Your task to perform on an android device: check android version Image 0: 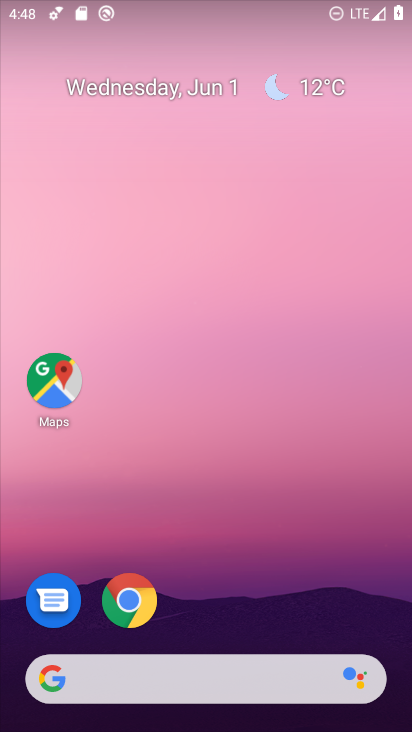
Step 0: drag from (358, 620) to (273, 163)
Your task to perform on an android device: check android version Image 1: 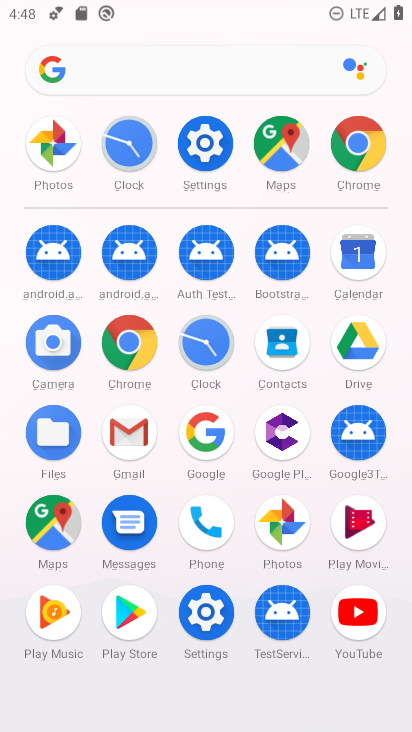
Step 1: click (208, 616)
Your task to perform on an android device: check android version Image 2: 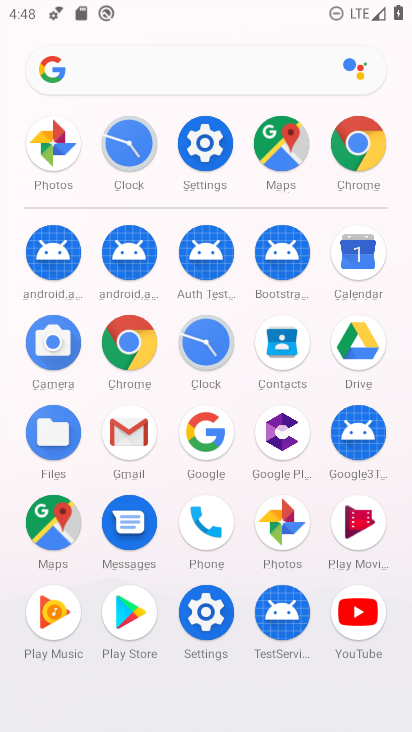
Step 2: click (208, 616)
Your task to perform on an android device: check android version Image 3: 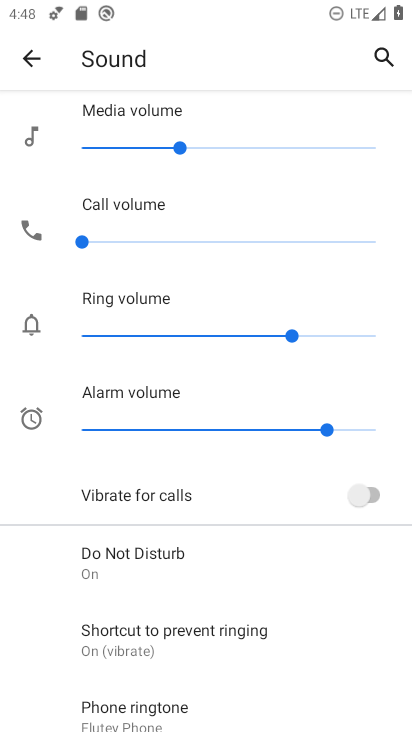
Step 3: press back button
Your task to perform on an android device: check android version Image 4: 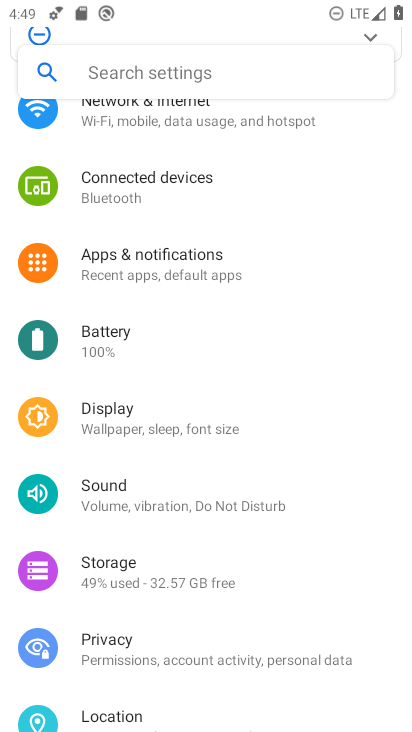
Step 4: drag from (352, 648) to (266, 151)
Your task to perform on an android device: check android version Image 5: 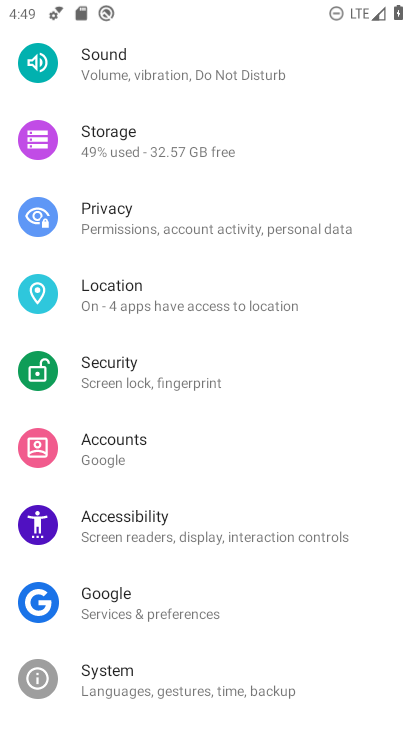
Step 5: drag from (325, 682) to (288, 193)
Your task to perform on an android device: check android version Image 6: 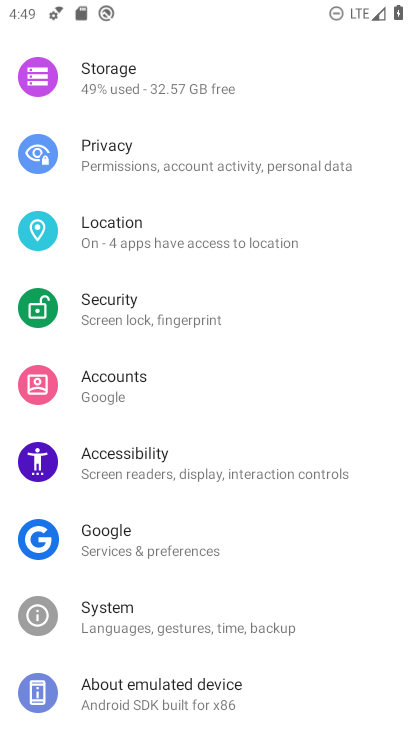
Step 6: click (186, 695)
Your task to perform on an android device: check android version Image 7: 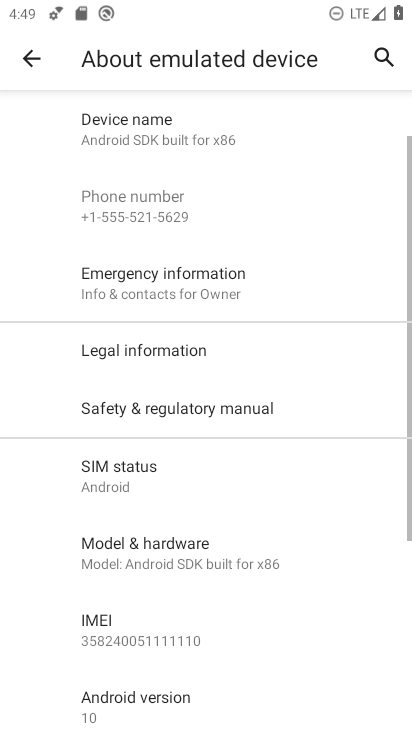
Step 7: click (173, 699)
Your task to perform on an android device: check android version Image 8: 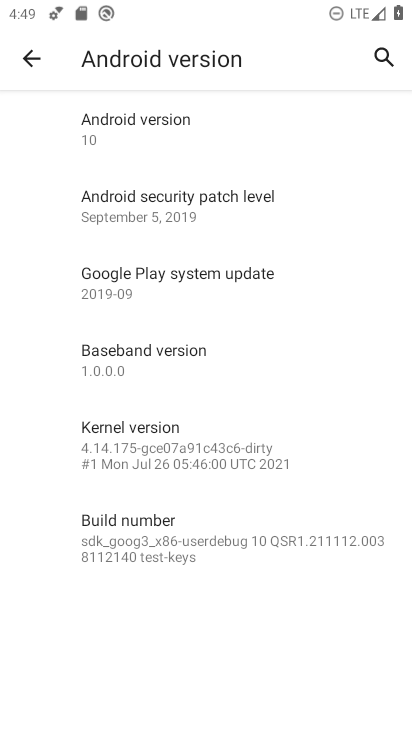
Step 8: task complete